Your task to perform on an android device: Open wifi settings Image 0: 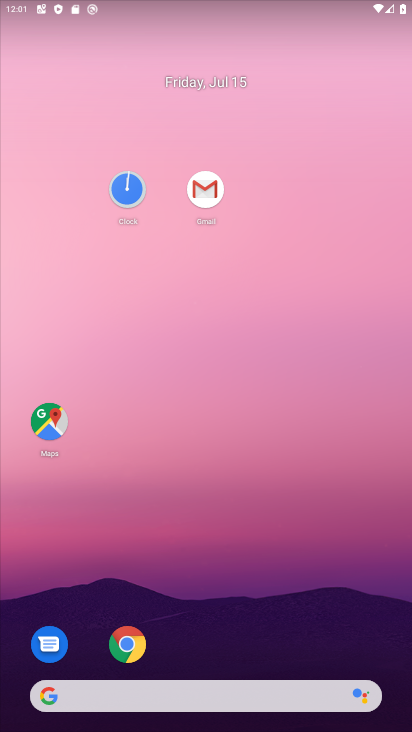
Step 0: drag from (274, 622) to (312, 119)
Your task to perform on an android device: Open wifi settings Image 1: 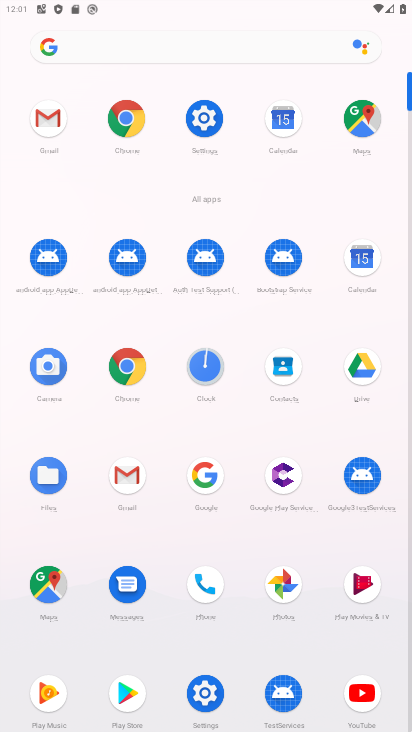
Step 1: click (204, 113)
Your task to perform on an android device: Open wifi settings Image 2: 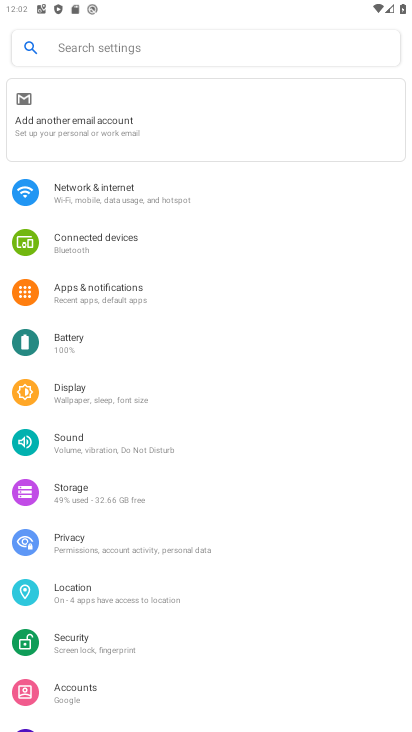
Step 2: click (138, 195)
Your task to perform on an android device: Open wifi settings Image 3: 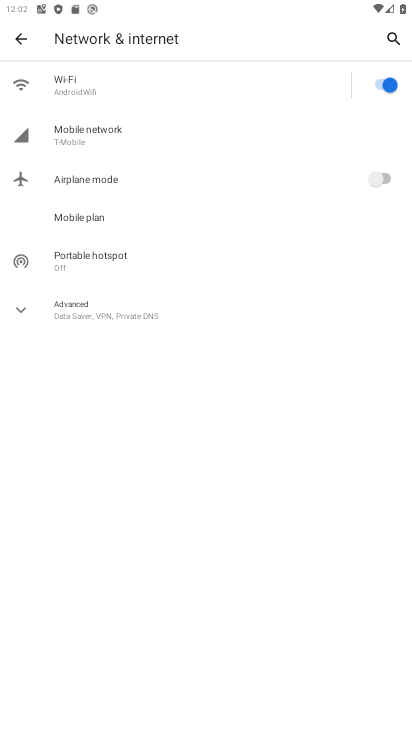
Step 3: task complete